Your task to perform on an android device: snooze an email in the gmail app Image 0: 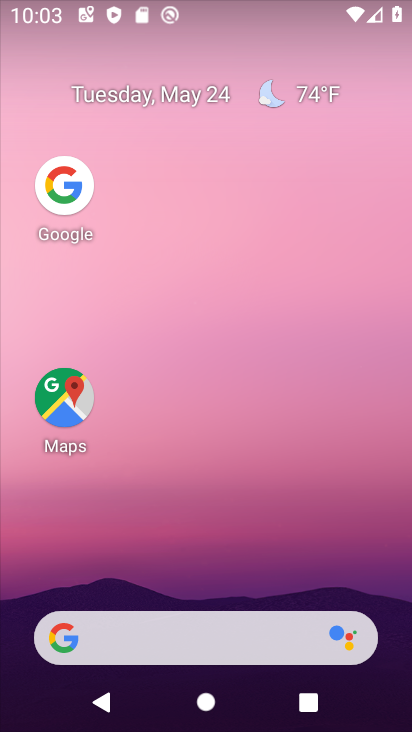
Step 0: drag from (185, 586) to (175, 212)
Your task to perform on an android device: snooze an email in the gmail app Image 1: 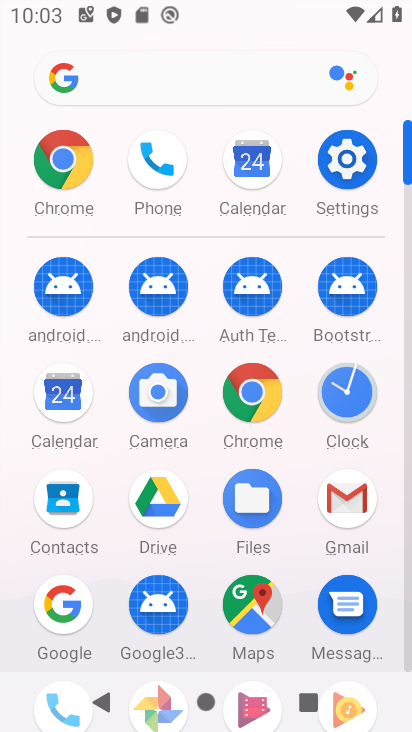
Step 1: click (351, 502)
Your task to perform on an android device: snooze an email in the gmail app Image 2: 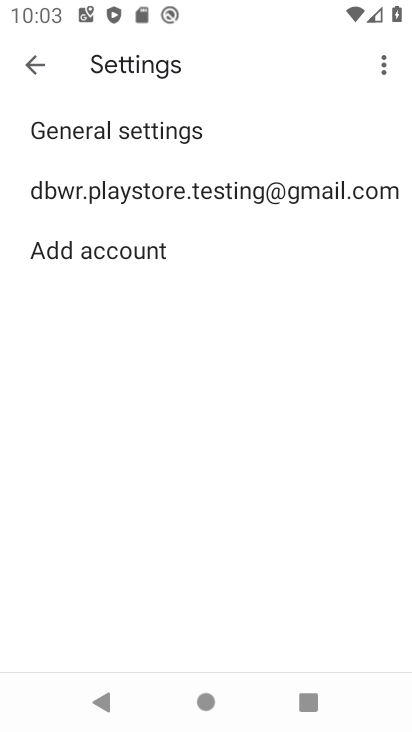
Step 2: click (25, 50)
Your task to perform on an android device: snooze an email in the gmail app Image 3: 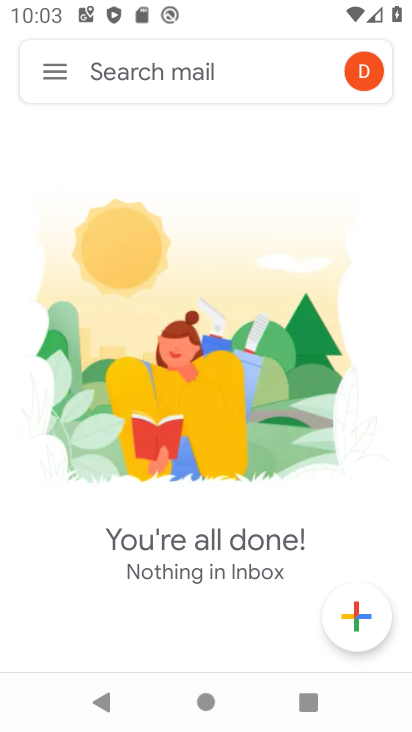
Step 3: press home button
Your task to perform on an android device: snooze an email in the gmail app Image 4: 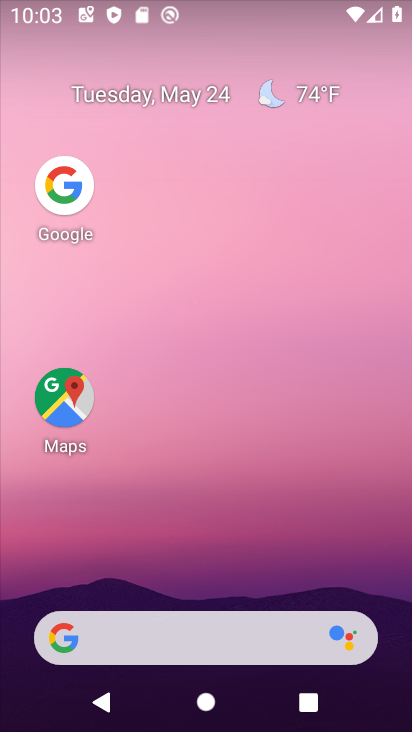
Step 4: drag from (221, 601) to (165, 168)
Your task to perform on an android device: snooze an email in the gmail app Image 5: 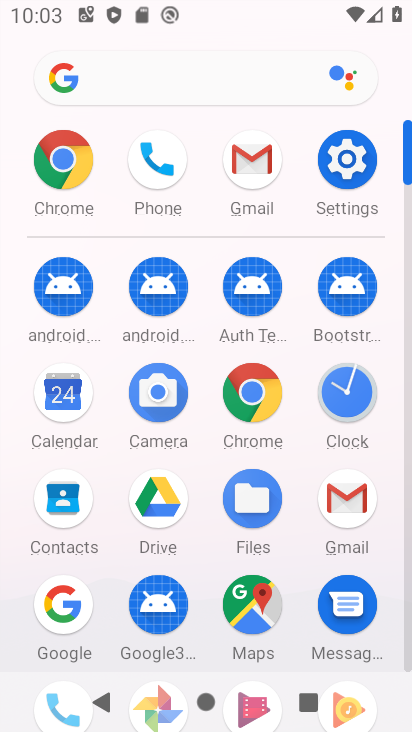
Step 5: click (341, 488)
Your task to perform on an android device: snooze an email in the gmail app Image 6: 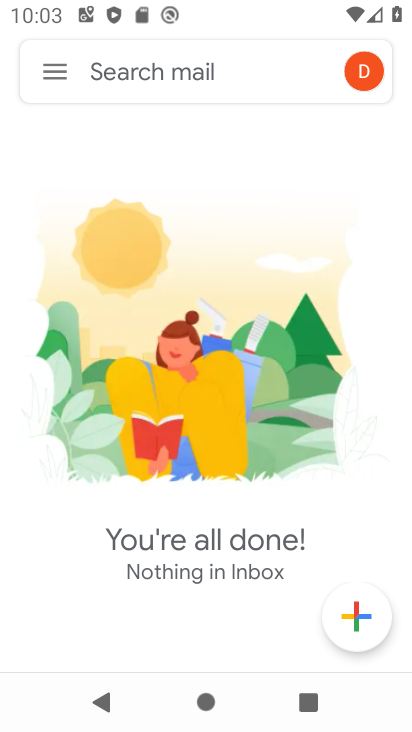
Step 6: task complete